Your task to perform on an android device: turn notification dots off Image 0: 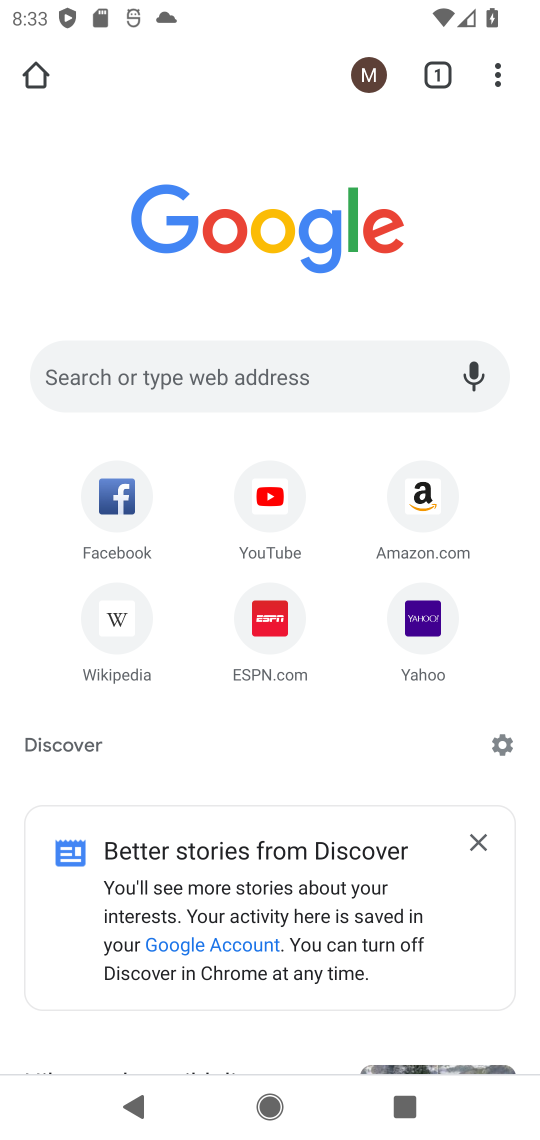
Step 0: press home button
Your task to perform on an android device: turn notification dots off Image 1: 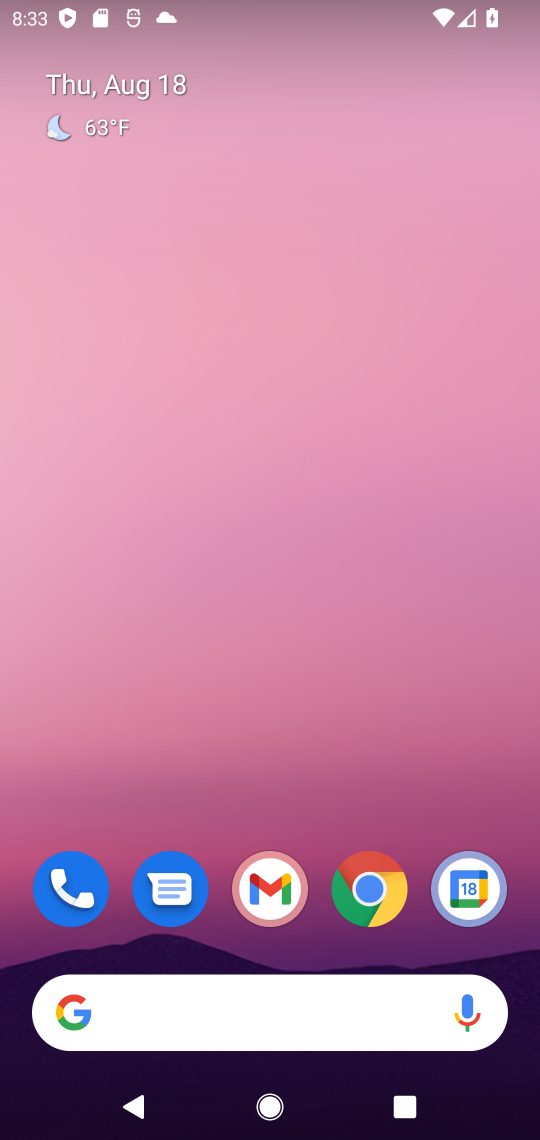
Step 1: drag from (359, 821) to (387, 36)
Your task to perform on an android device: turn notification dots off Image 2: 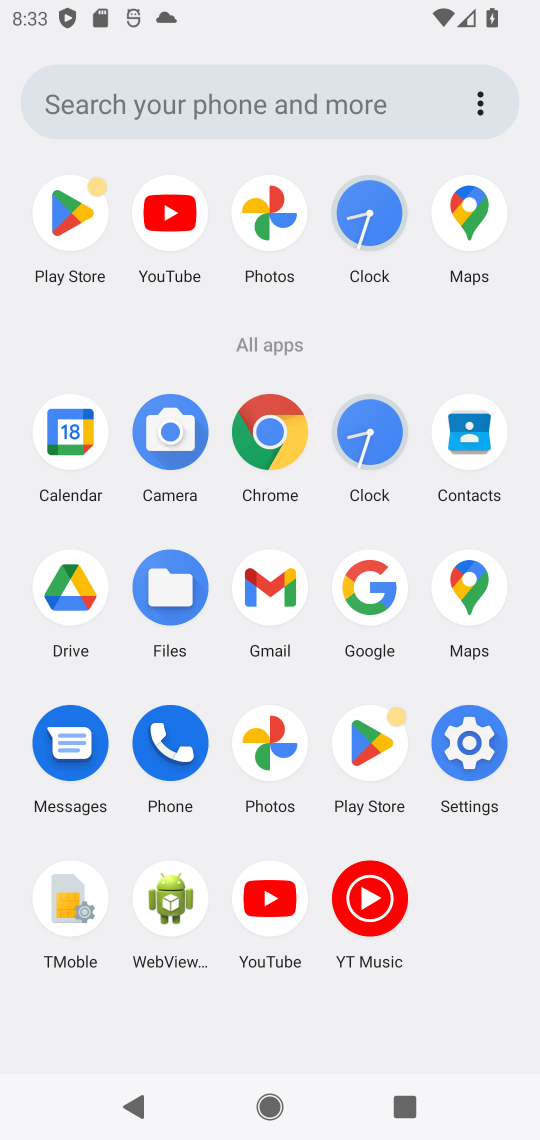
Step 2: click (474, 743)
Your task to perform on an android device: turn notification dots off Image 3: 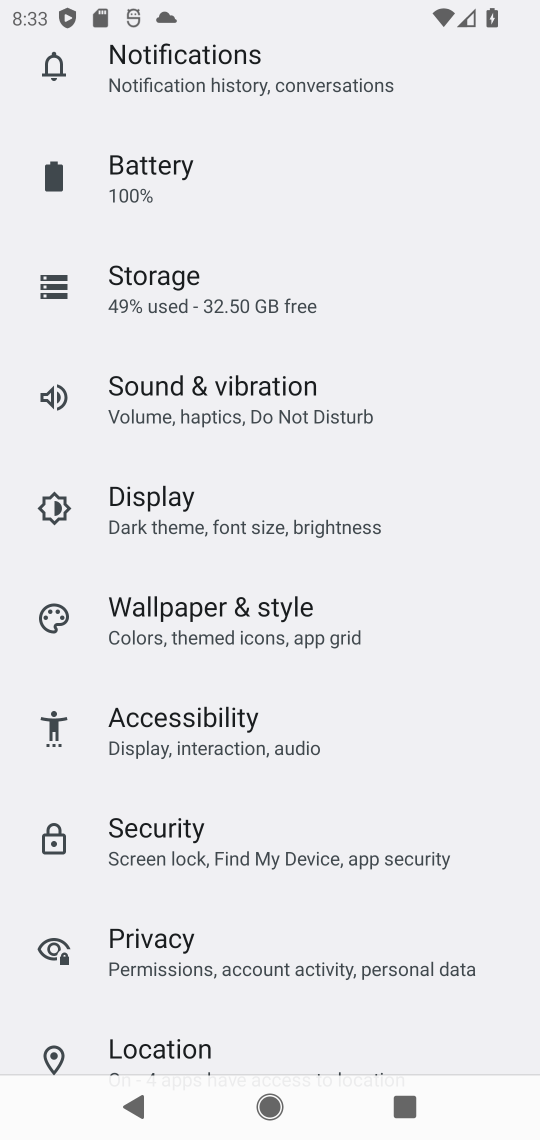
Step 3: click (226, 84)
Your task to perform on an android device: turn notification dots off Image 4: 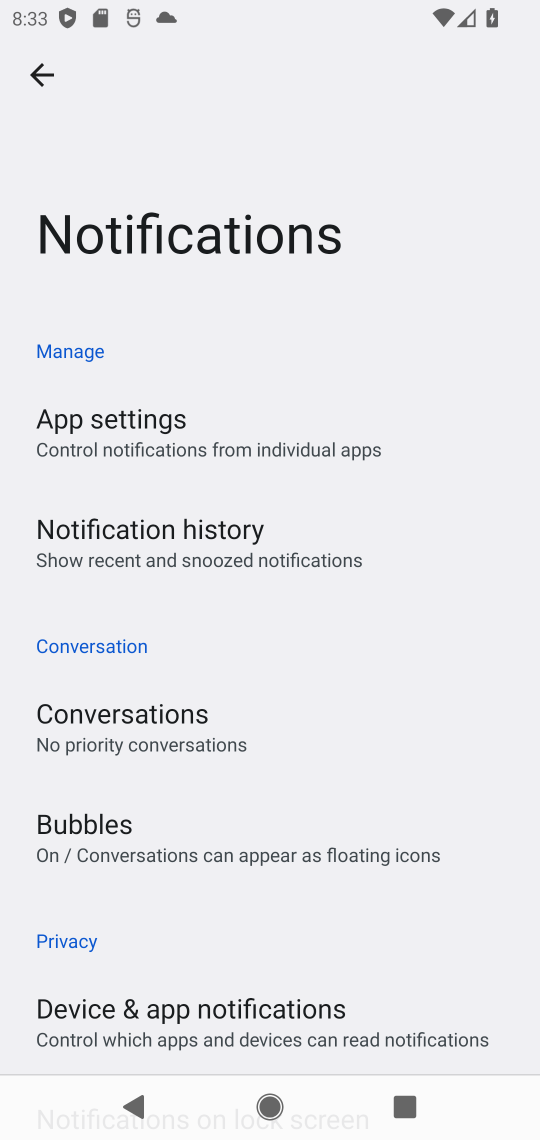
Step 4: drag from (271, 953) to (327, 202)
Your task to perform on an android device: turn notification dots off Image 5: 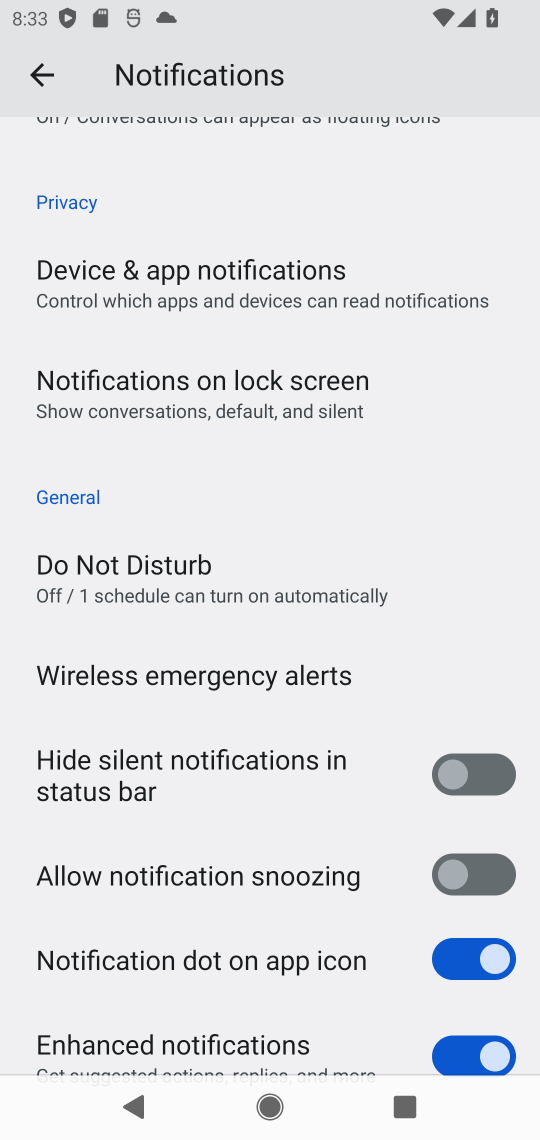
Step 5: drag from (228, 510) to (284, 80)
Your task to perform on an android device: turn notification dots off Image 6: 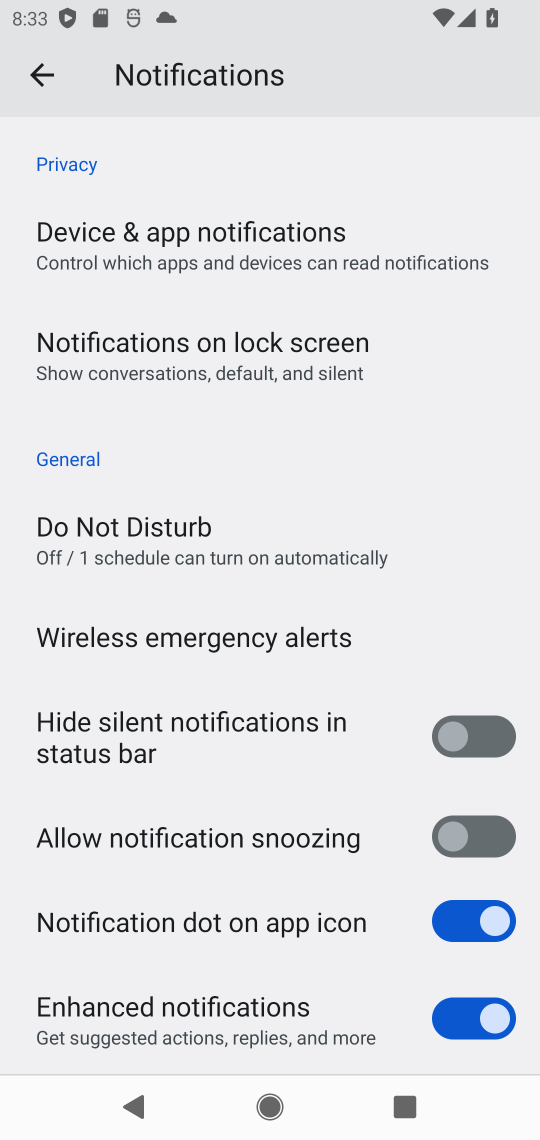
Step 6: click (487, 906)
Your task to perform on an android device: turn notification dots off Image 7: 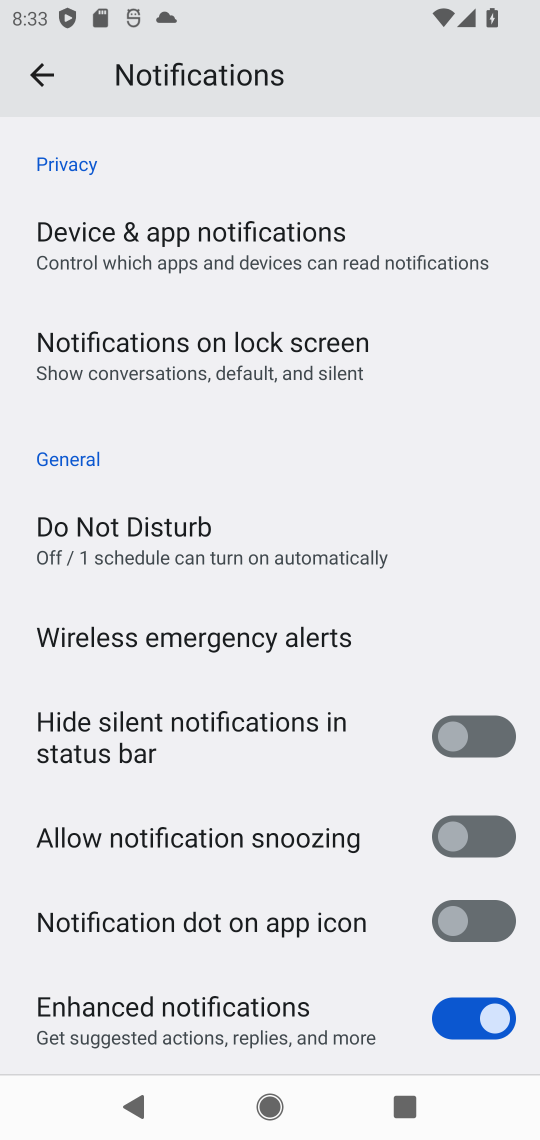
Step 7: task complete